Your task to perform on an android device: Go to Google maps Image 0: 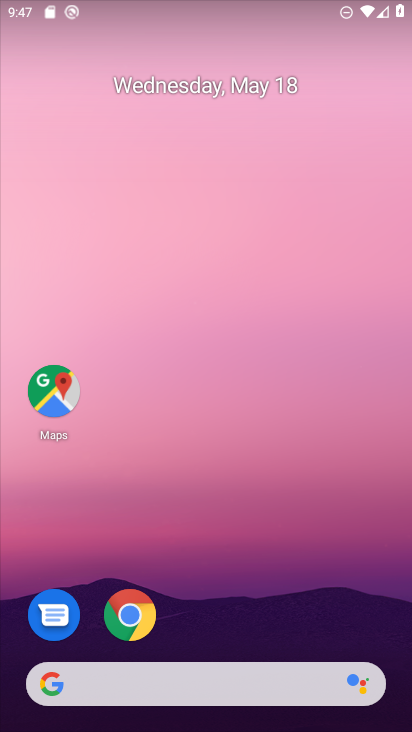
Step 0: click (60, 396)
Your task to perform on an android device: Go to Google maps Image 1: 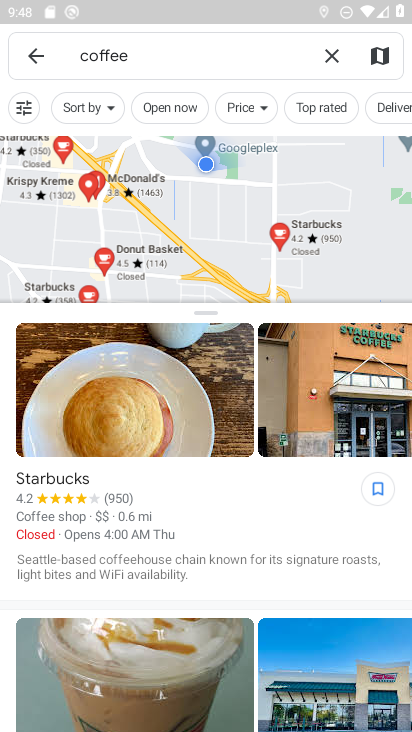
Step 1: task complete